Your task to perform on an android device: toggle show notifications on the lock screen Image 0: 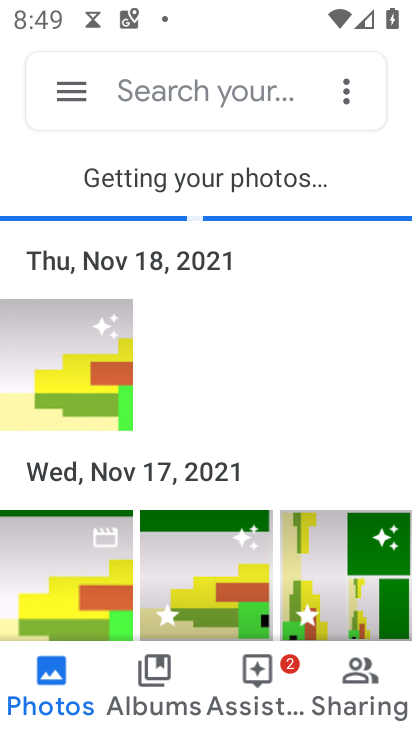
Step 0: press home button
Your task to perform on an android device: toggle show notifications on the lock screen Image 1: 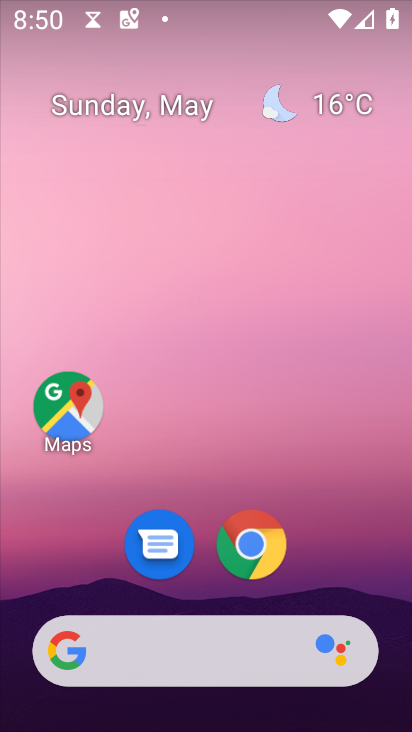
Step 1: drag from (295, 576) to (166, 61)
Your task to perform on an android device: toggle show notifications on the lock screen Image 2: 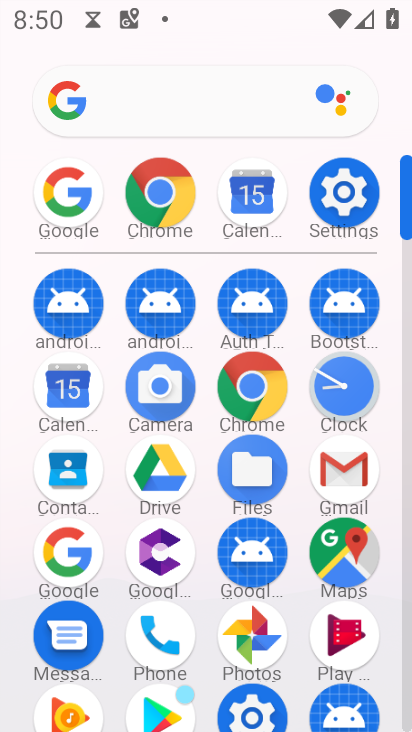
Step 2: click (343, 254)
Your task to perform on an android device: toggle show notifications on the lock screen Image 3: 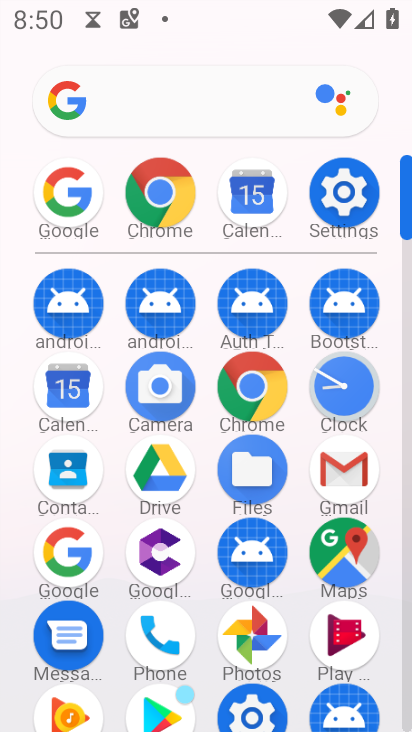
Step 3: click (334, 200)
Your task to perform on an android device: toggle show notifications on the lock screen Image 4: 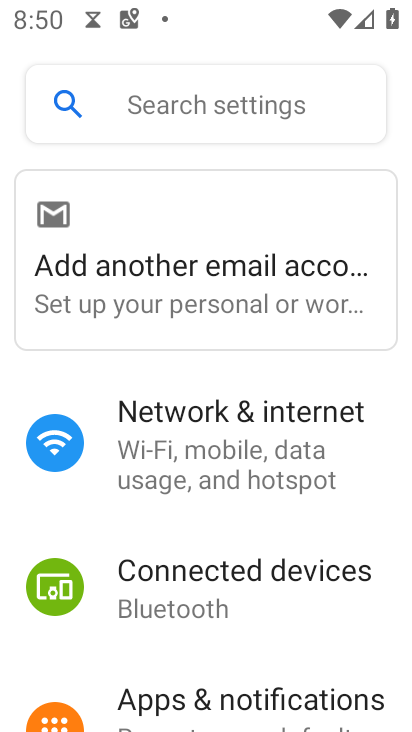
Step 4: click (204, 700)
Your task to perform on an android device: toggle show notifications on the lock screen Image 5: 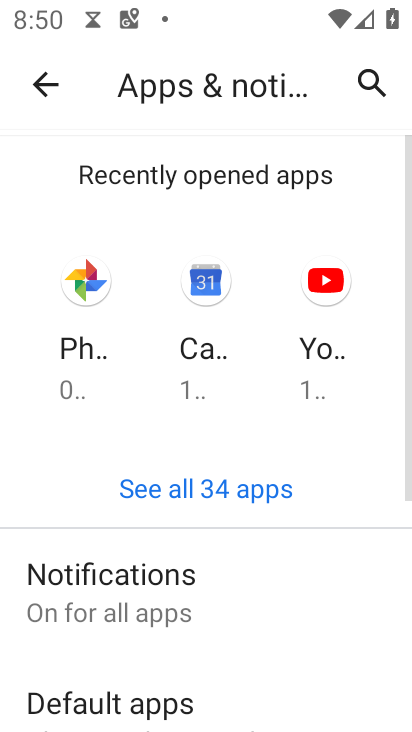
Step 5: drag from (161, 660) to (187, 378)
Your task to perform on an android device: toggle show notifications on the lock screen Image 6: 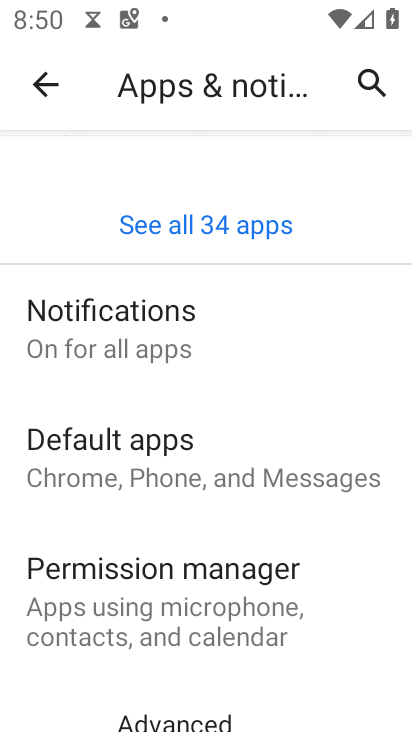
Step 6: click (144, 347)
Your task to perform on an android device: toggle show notifications on the lock screen Image 7: 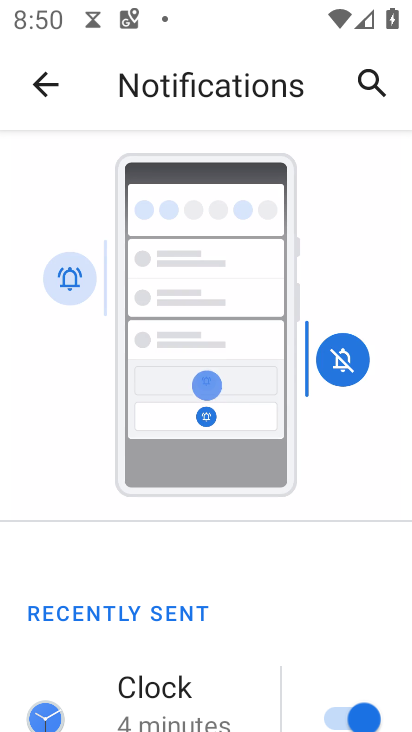
Step 7: drag from (214, 658) to (209, 288)
Your task to perform on an android device: toggle show notifications on the lock screen Image 8: 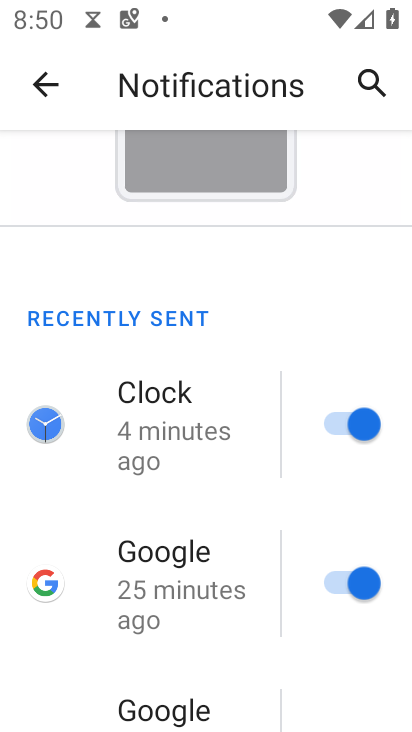
Step 8: drag from (192, 680) to (208, 237)
Your task to perform on an android device: toggle show notifications on the lock screen Image 9: 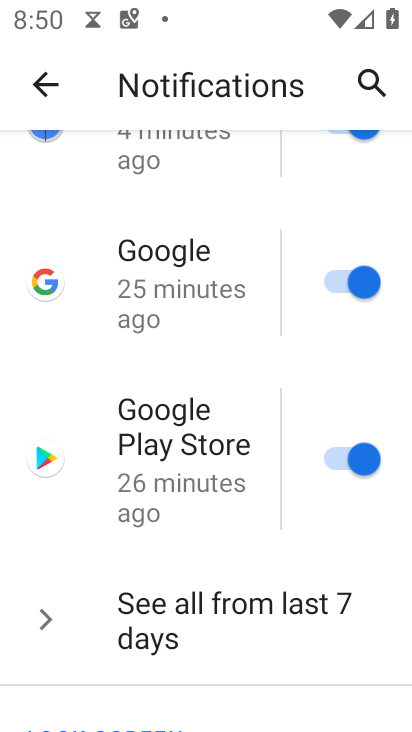
Step 9: drag from (161, 666) to (166, 216)
Your task to perform on an android device: toggle show notifications on the lock screen Image 10: 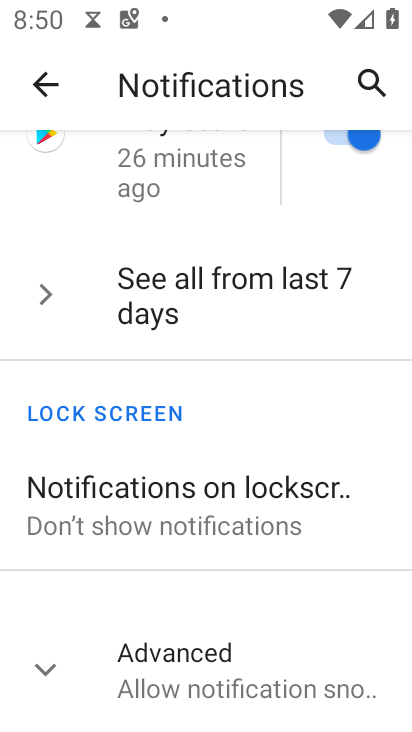
Step 10: click (178, 513)
Your task to perform on an android device: toggle show notifications on the lock screen Image 11: 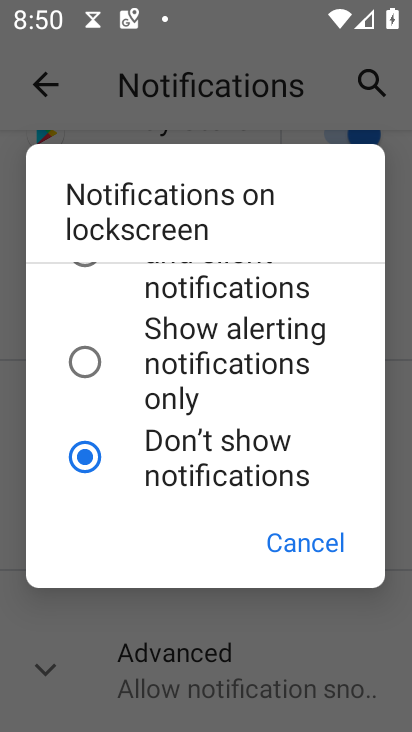
Step 11: click (80, 262)
Your task to perform on an android device: toggle show notifications on the lock screen Image 12: 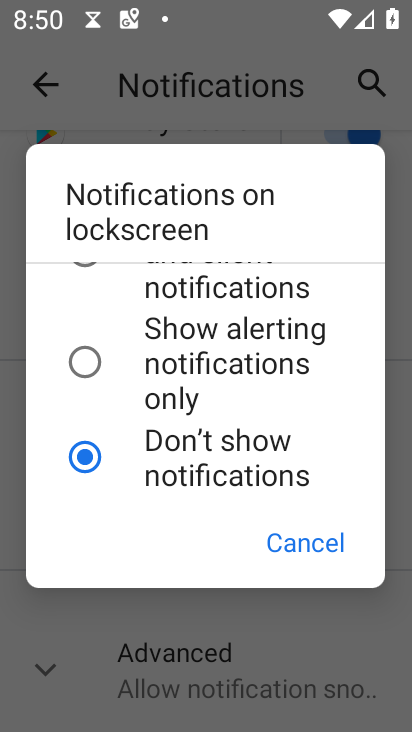
Step 12: click (88, 266)
Your task to perform on an android device: toggle show notifications on the lock screen Image 13: 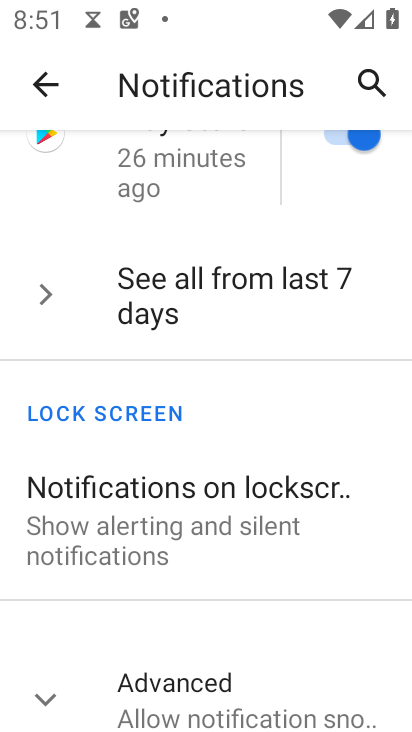
Step 13: task complete